Your task to perform on an android device: Open the stopwatch Image 0: 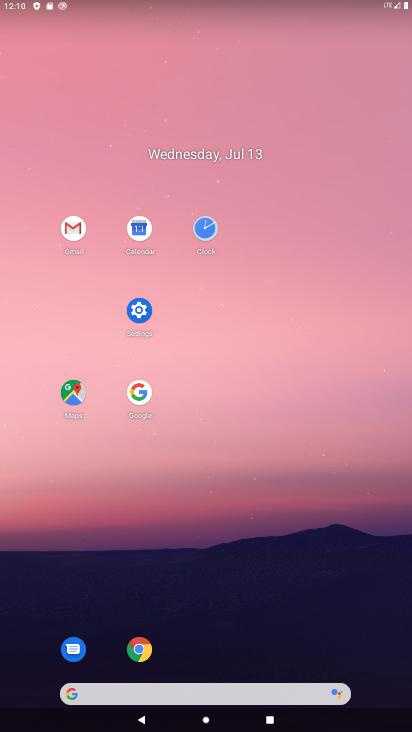
Step 0: click (211, 222)
Your task to perform on an android device: Open the stopwatch Image 1: 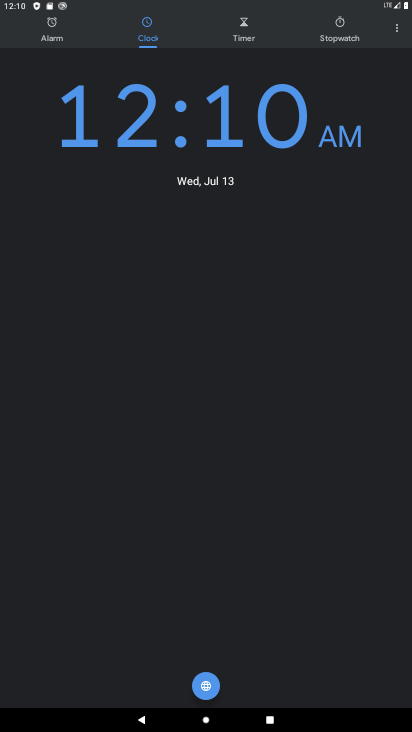
Step 1: click (399, 33)
Your task to perform on an android device: Open the stopwatch Image 2: 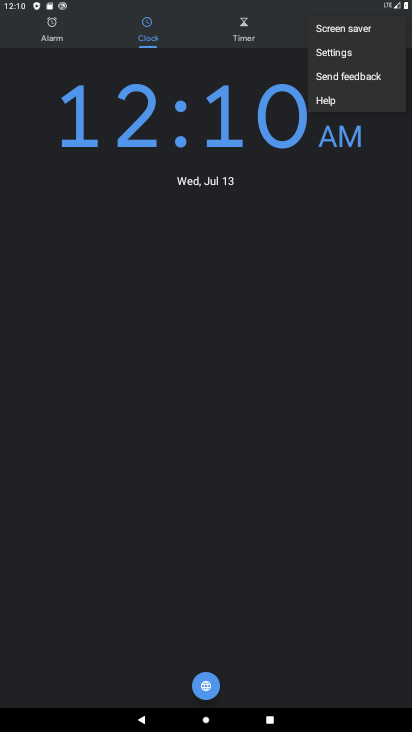
Step 2: click (307, 300)
Your task to perform on an android device: Open the stopwatch Image 3: 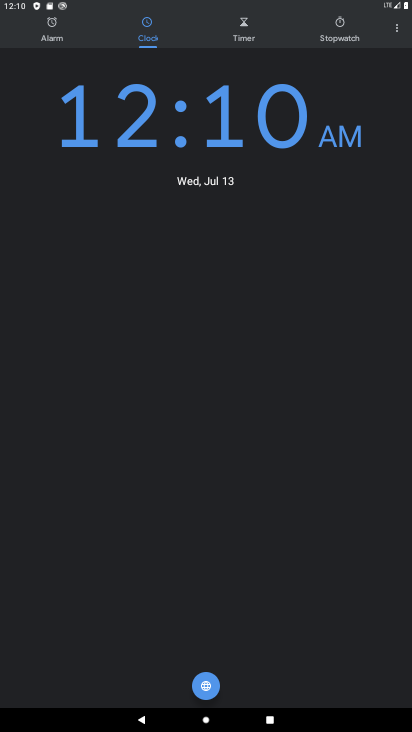
Step 3: click (328, 31)
Your task to perform on an android device: Open the stopwatch Image 4: 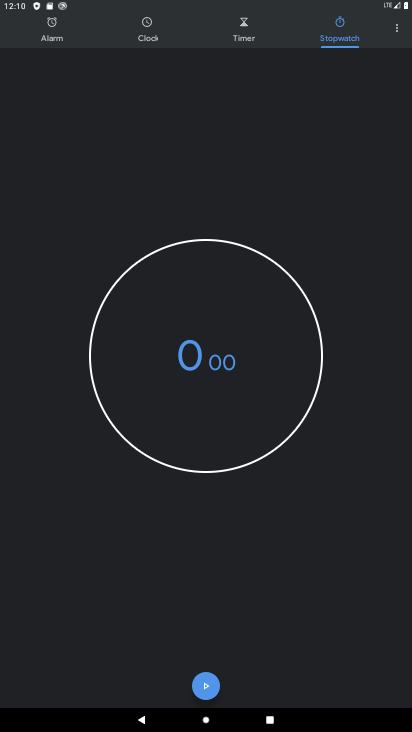
Step 4: task complete